Your task to perform on an android device: Open Google Image 0: 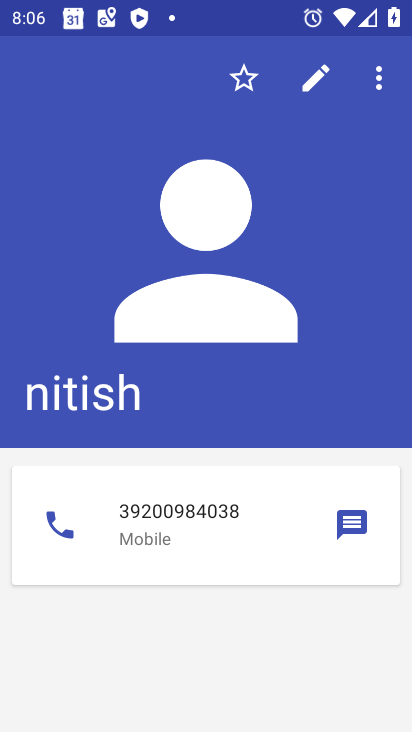
Step 0: press home button
Your task to perform on an android device: Open Google Image 1: 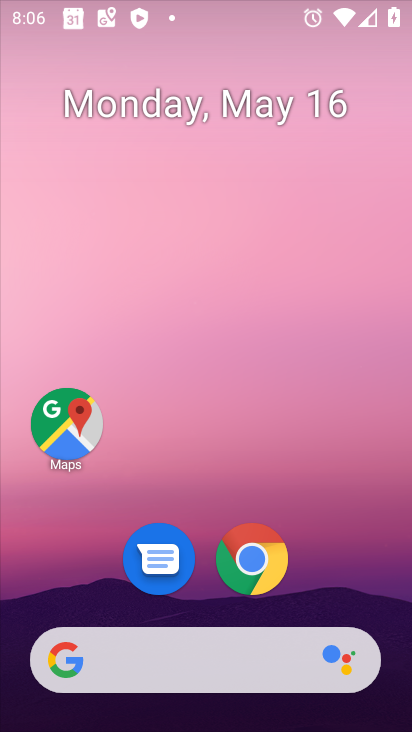
Step 1: drag from (364, 553) to (363, 124)
Your task to perform on an android device: Open Google Image 2: 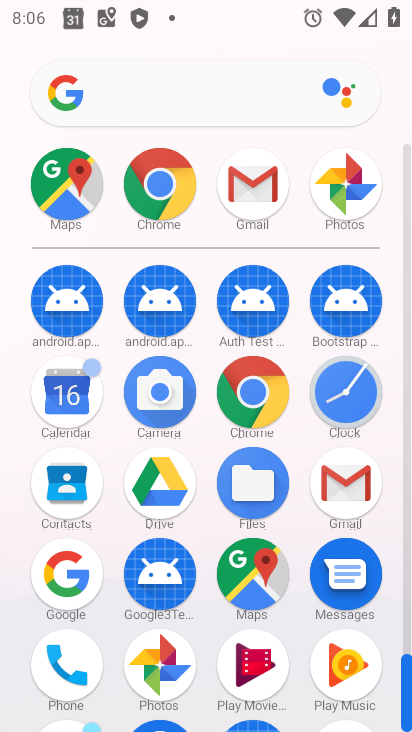
Step 2: click (73, 560)
Your task to perform on an android device: Open Google Image 3: 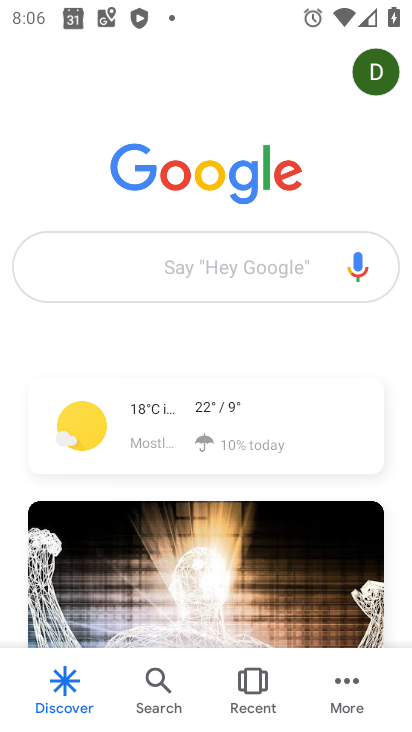
Step 3: task complete